Your task to perform on an android device: Check the weather Image 0: 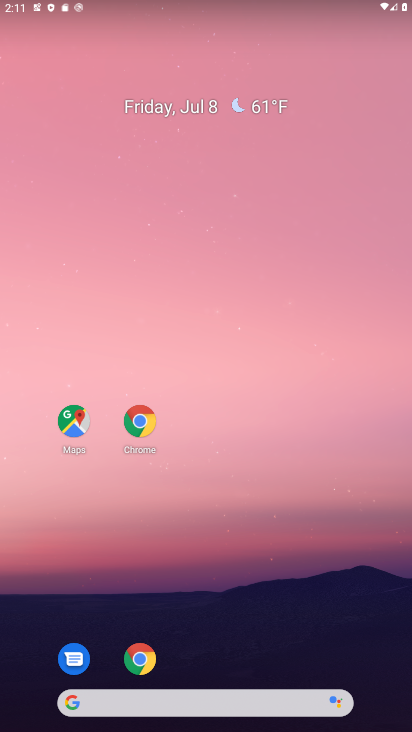
Step 0: click (193, 713)
Your task to perform on an android device: Check the weather Image 1: 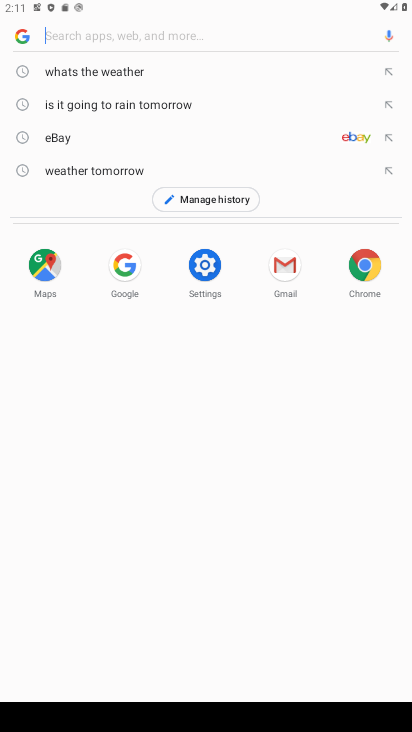
Step 1: click (98, 76)
Your task to perform on an android device: Check the weather Image 2: 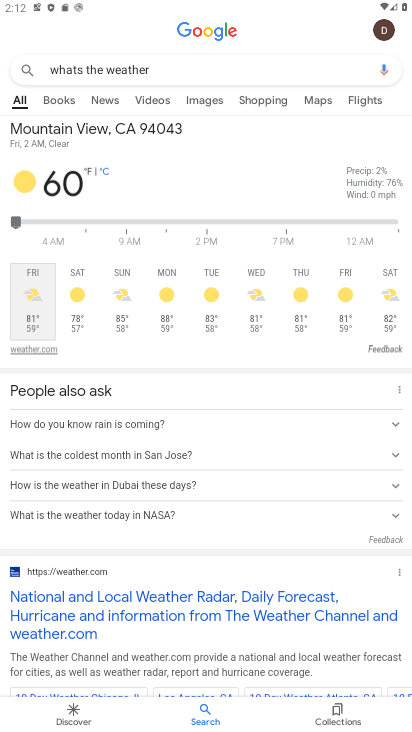
Step 2: task complete